Your task to perform on an android device: Do I have any events this weekend? Image 0: 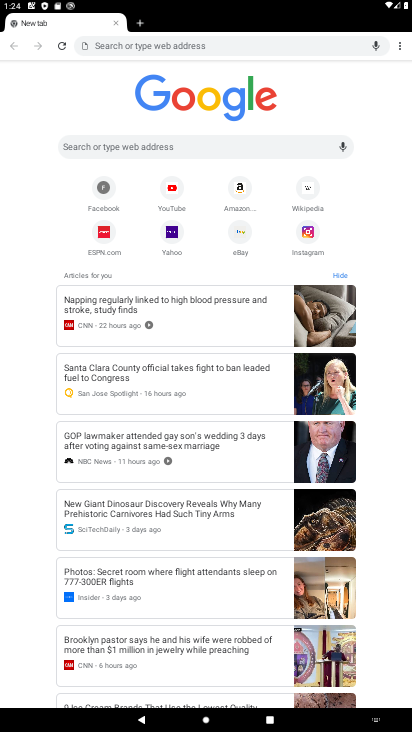
Step 0: press home button
Your task to perform on an android device: Do I have any events this weekend? Image 1: 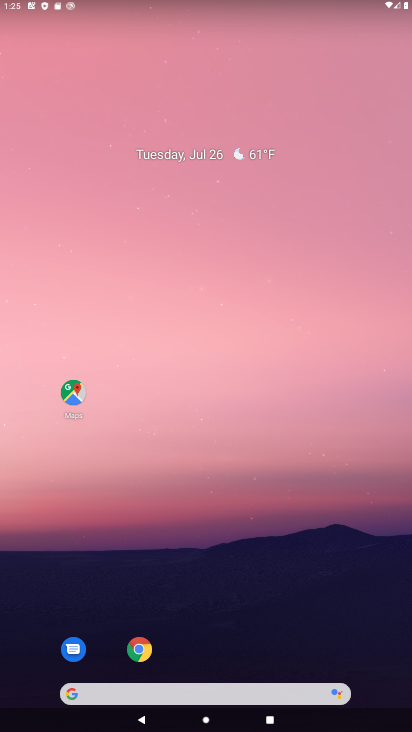
Step 1: drag from (200, 607) to (201, 49)
Your task to perform on an android device: Do I have any events this weekend? Image 2: 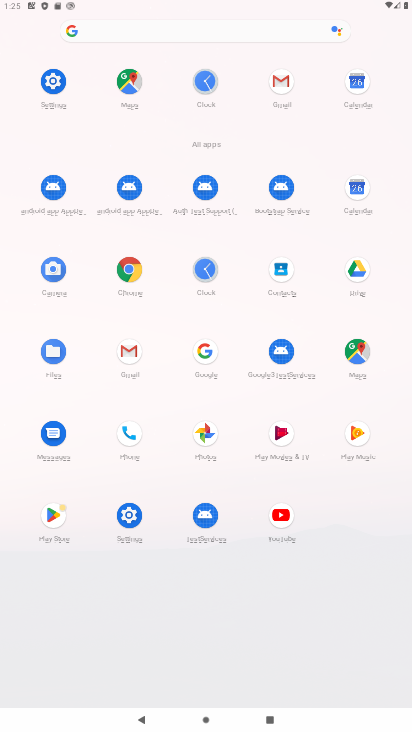
Step 2: click (356, 198)
Your task to perform on an android device: Do I have any events this weekend? Image 3: 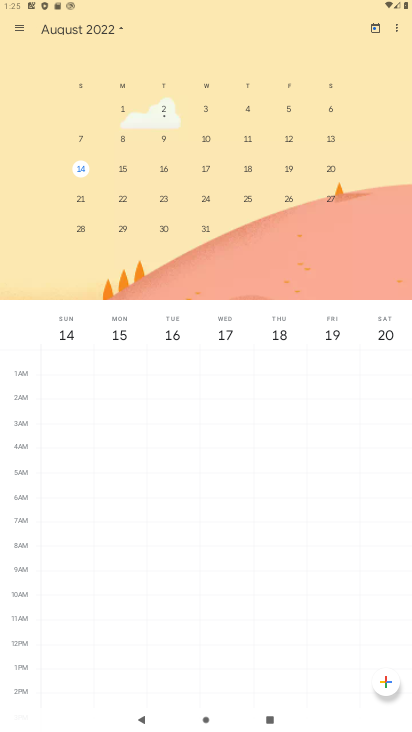
Step 3: click (86, 19)
Your task to perform on an android device: Do I have any events this weekend? Image 4: 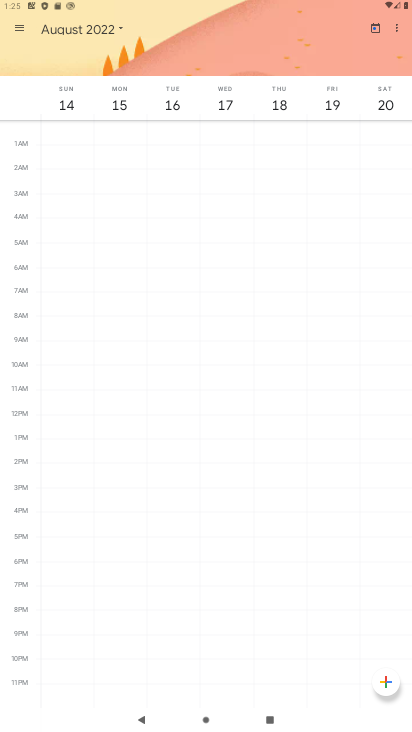
Step 4: click (75, 35)
Your task to perform on an android device: Do I have any events this weekend? Image 5: 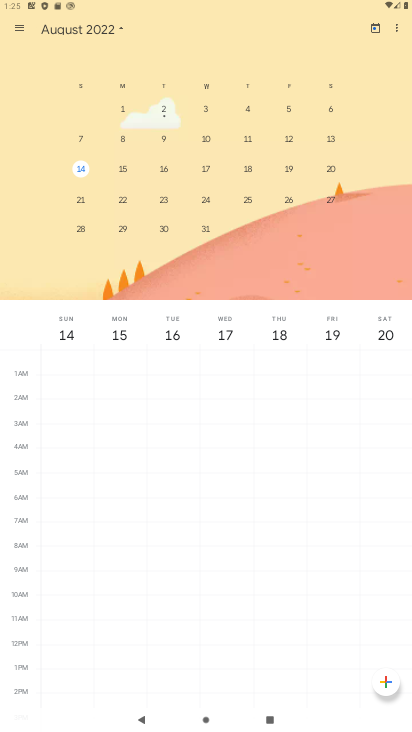
Step 5: drag from (145, 171) to (410, 223)
Your task to perform on an android device: Do I have any events this weekend? Image 6: 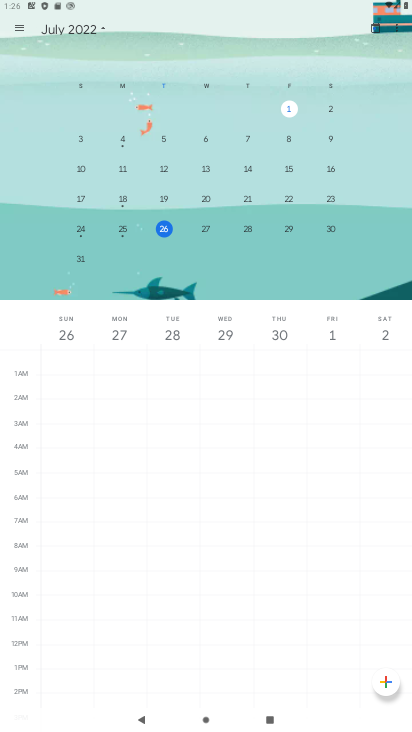
Step 6: click (82, 228)
Your task to perform on an android device: Do I have any events this weekend? Image 7: 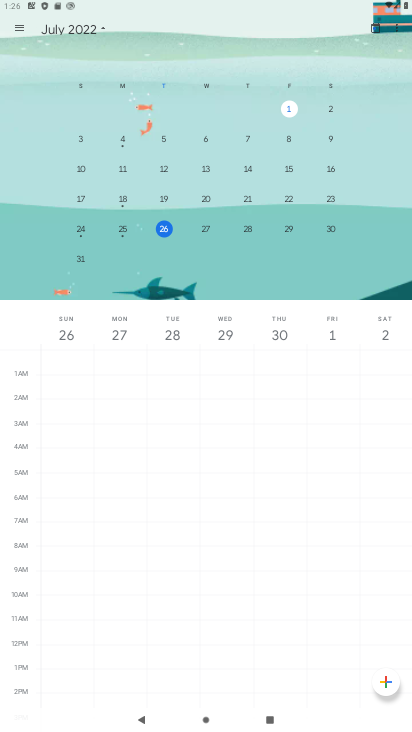
Step 7: click (82, 228)
Your task to perform on an android device: Do I have any events this weekend? Image 8: 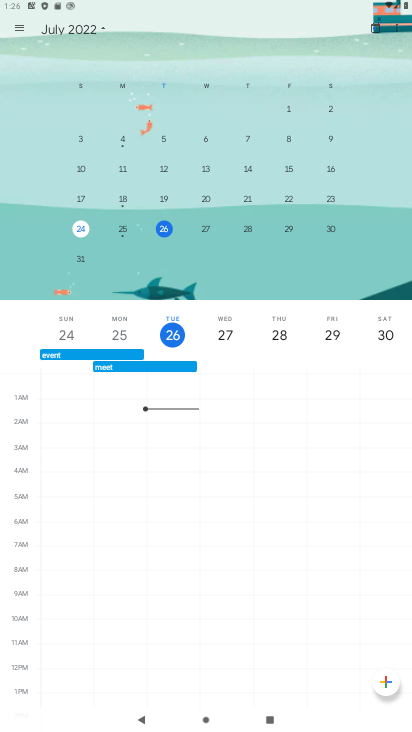
Step 8: task complete